Your task to perform on an android device: Add apple airpods to the cart on newegg.com, then select checkout. Image 0: 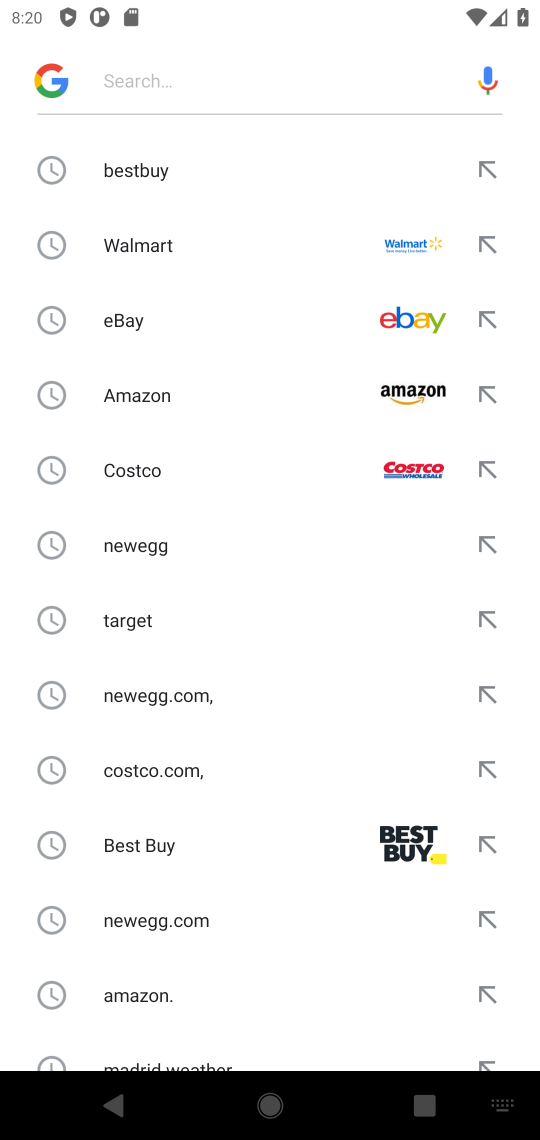
Step 0: press home button
Your task to perform on an android device: Add apple airpods to the cart on newegg.com, then select checkout. Image 1: 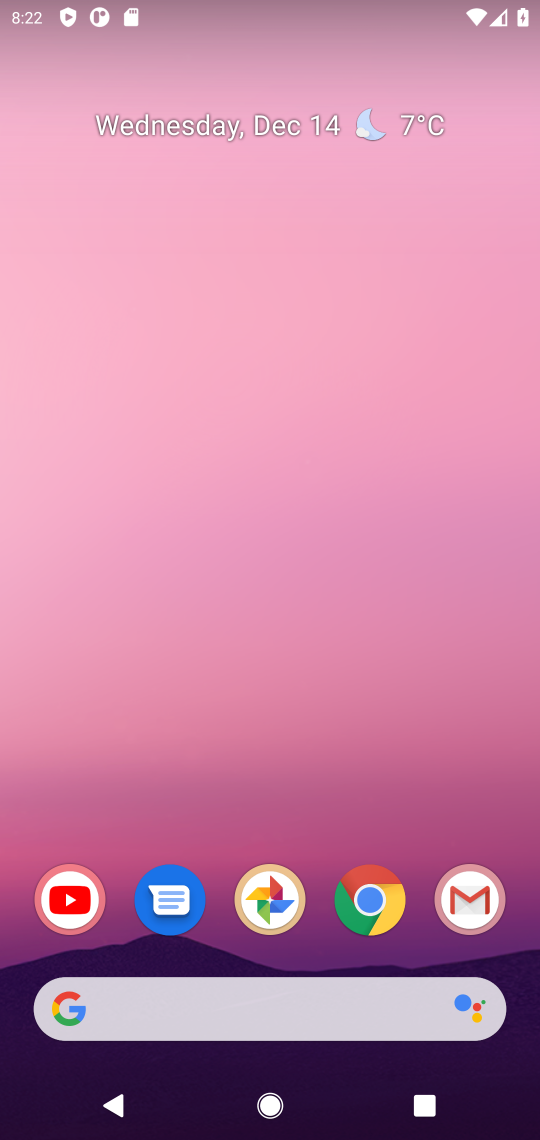
Step 1: click (236, 1025)
Your task to perform on an android device: Add apple airpods to the cart on newegg.com, then select checkout. Image 2: 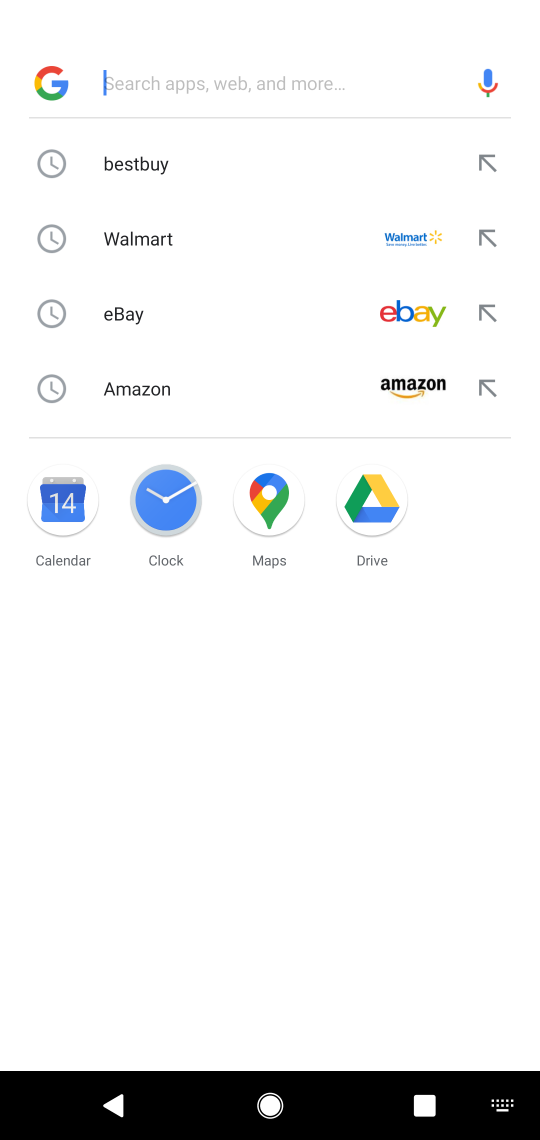
Step 2: type " newegg.com,"
Your task to perform on an android device: Add apple airpods to the cart on newegg.com, then select checkout. Image 3: 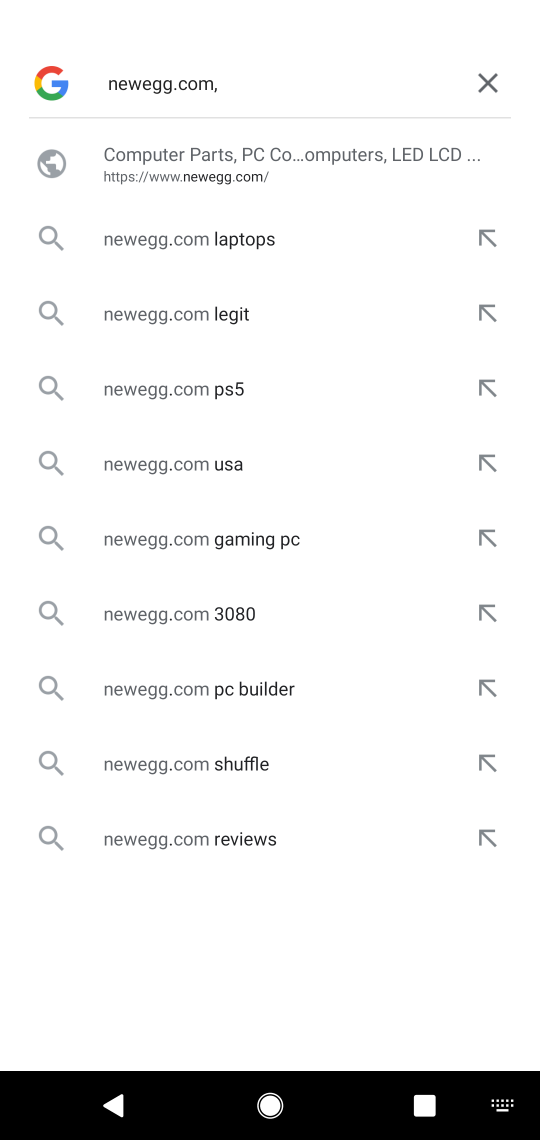
Step 3: click (152, 181)
Your task to perform on an android device: Add apple airpods to the cart on newegg.com, then select checkout. Image 4: 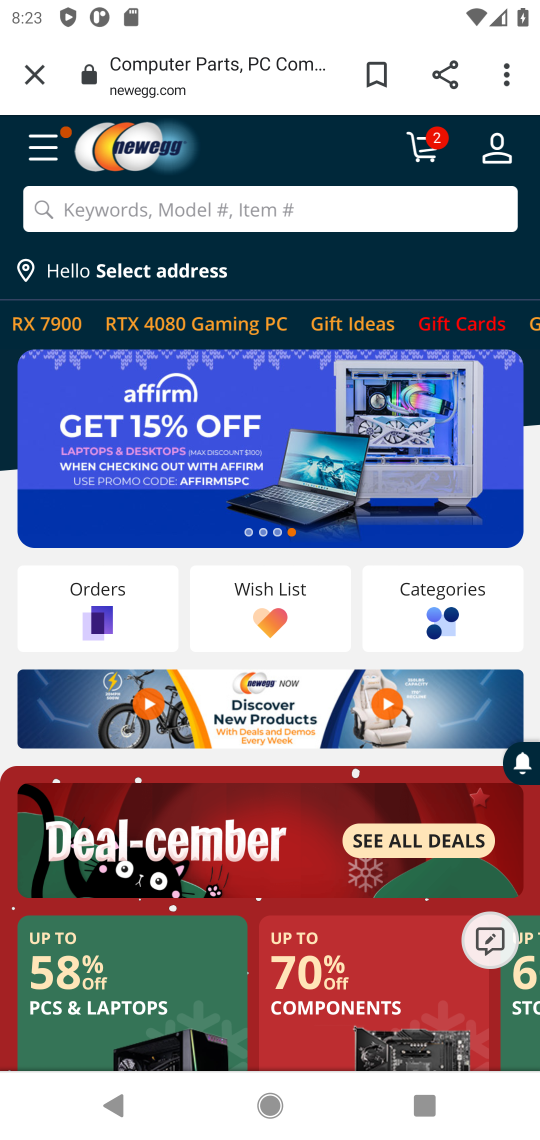
Step 4: click (200, 206)
Your task to perform on an android device: Add apple airpods to the cart on newegg.com, then select checkout. Image 5: 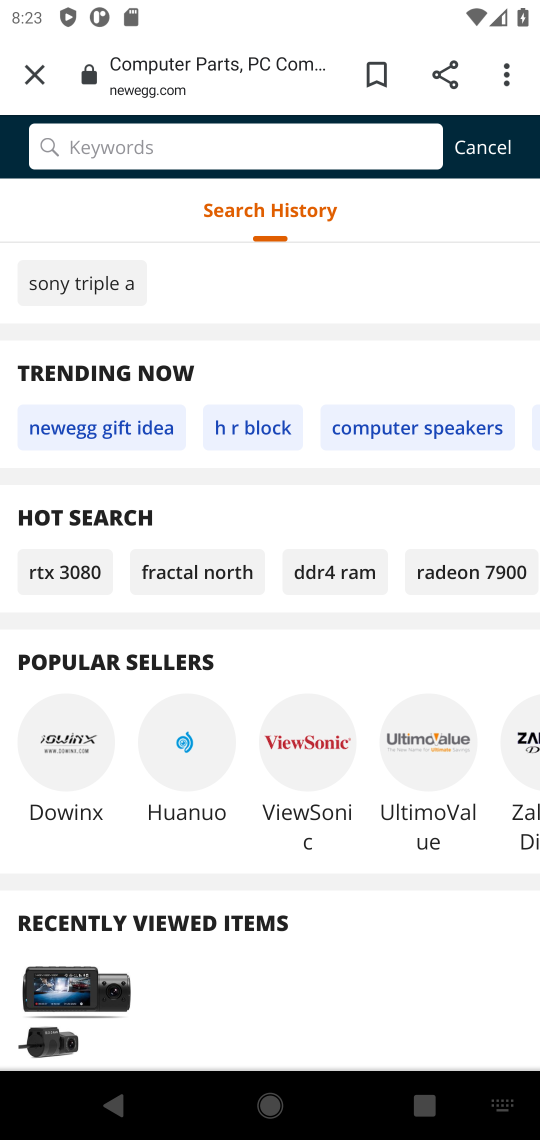
Step 5: type "apple airpods "
Your task to perform on an android device: Add apple airpods to the cart on newegg.com, then select checkout. Image 6: 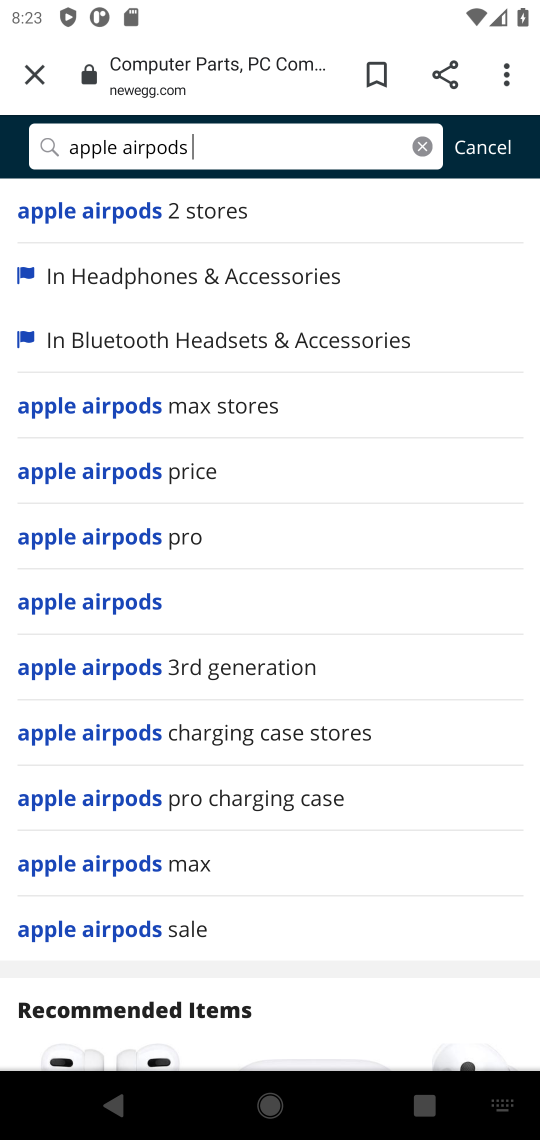
Step 6: click (137, 605)
Your task to perform on an android device: Add apple airpods to the cart on newegg.com, then select checkout. Image 7: 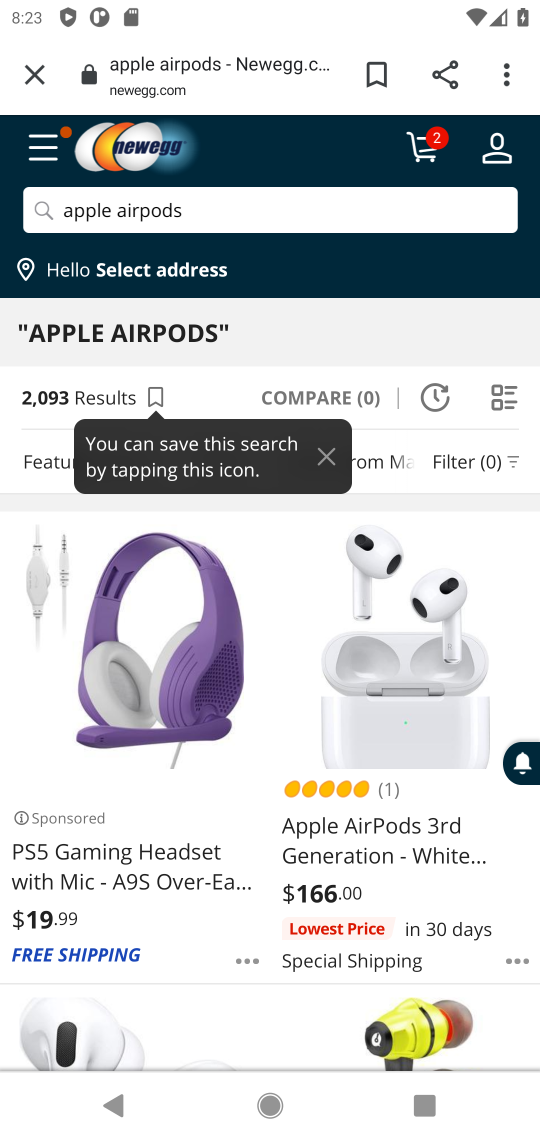
Step 7: click (112, 718)
Your task to perform on an android device: Add apple airpods to the cart on newegg.com, then select checkout. Image 8: 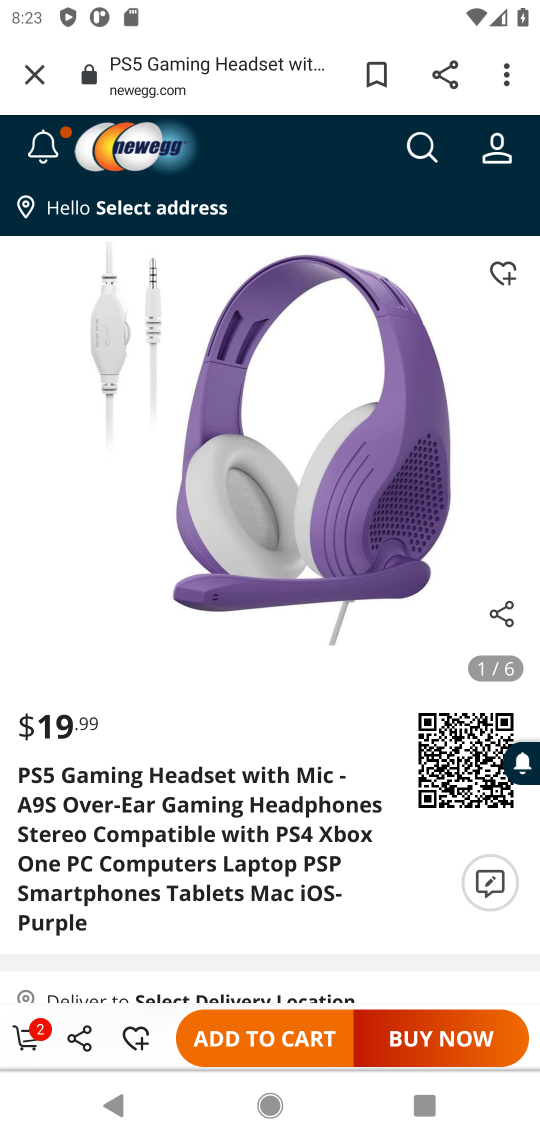
Step 8: click (236, 1030)
Your task to perform on an android device: Add apple airpods to the cart on newegg.com, then select checkout. Image 9: 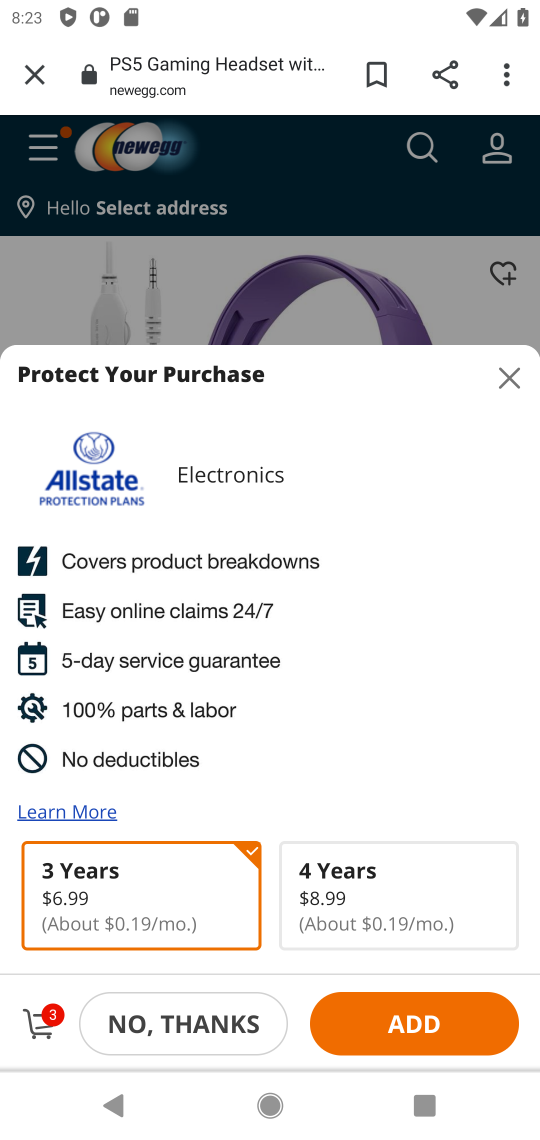
Step 9: click (236, 1030)
Your task to perform on an android device: Add apple airpods to the cart on newegg.com, then select checkout. Image 10: 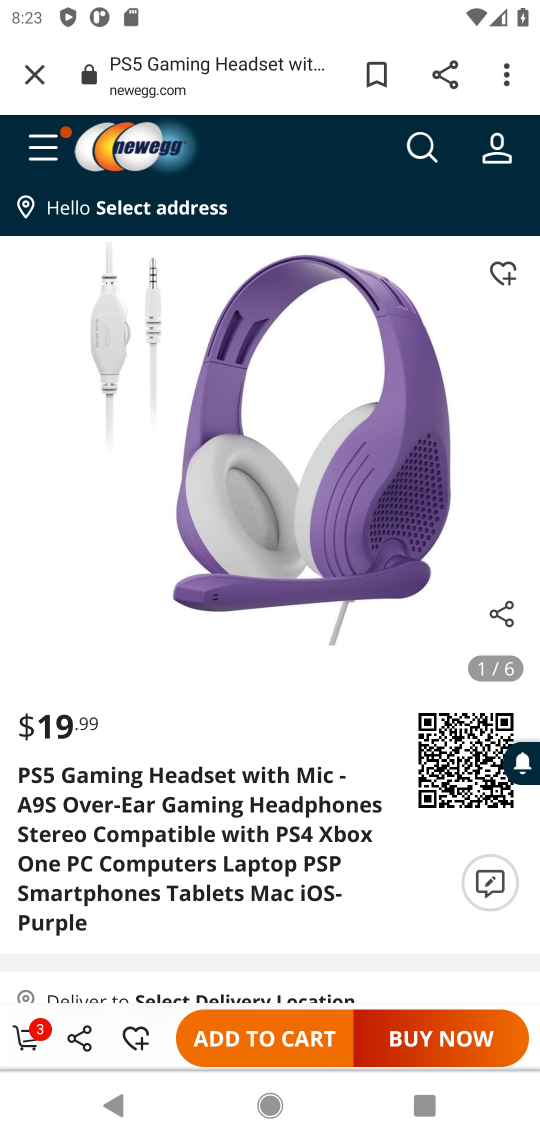
Step 10: click (12, 1057)
Your task to perform on an android device: Add apple airpods to the cart on newegg.com, then select checkout. Image 11: 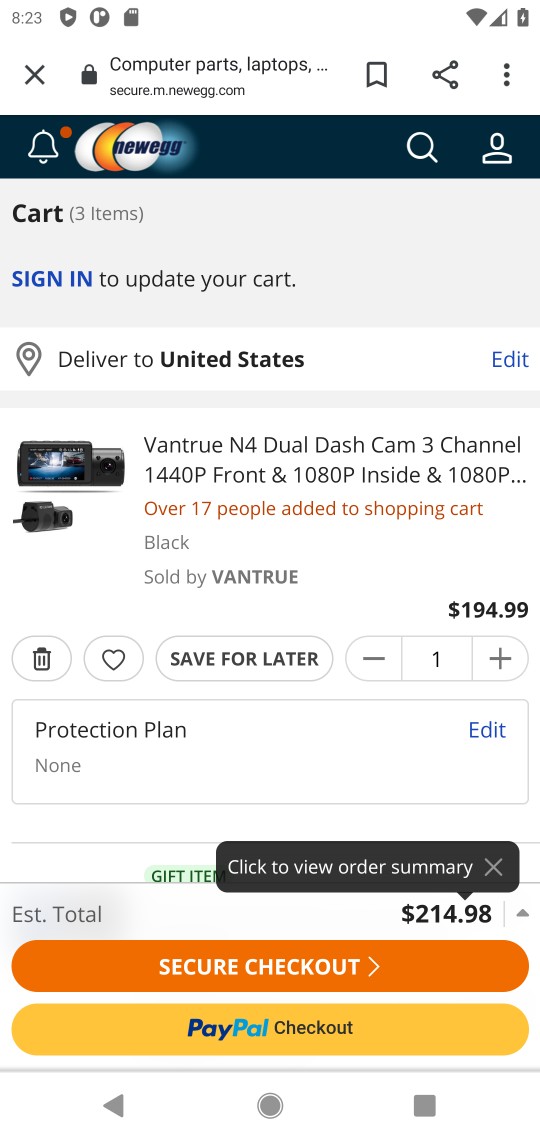
Step 11: click (247, 971)
Your task to perform on an android device: Add apple airpods to the cart on newegg.com, then select checkout. Image 12: 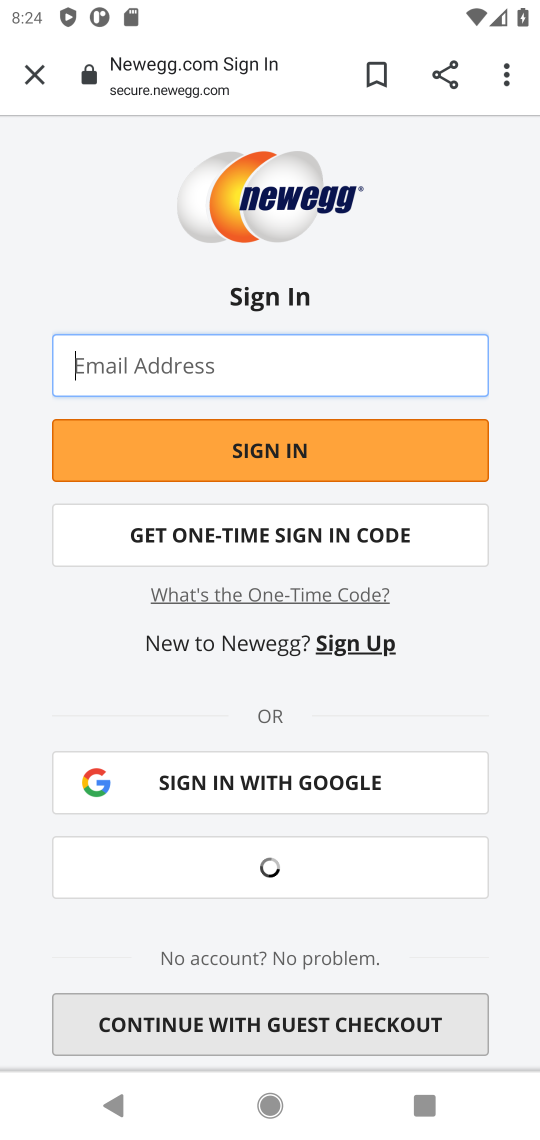
Step 12: task complete